Your task to perform on an android device: turn notification dots on Image 0: 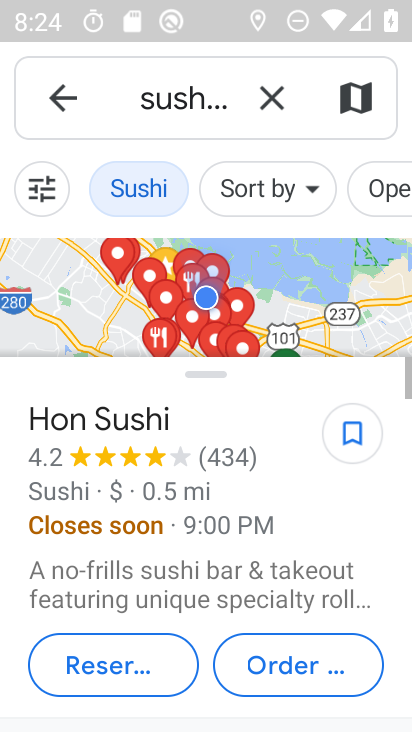
Step 0: press home button
Your task to perform on an android device: turn notification dots on Image 1: 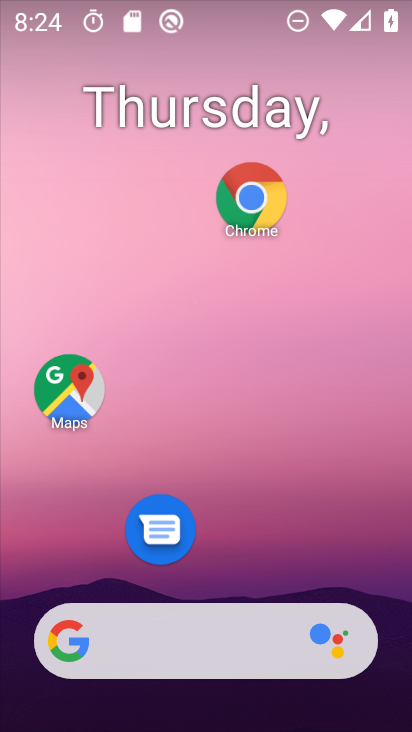
Step 1: drag from (228, 567) to (219, 0)
Your task to perform on an android device: turn notification dots on Image 2: 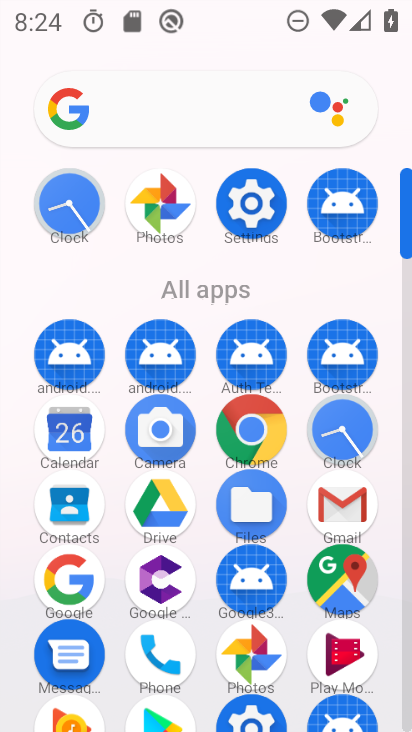
Step 2: click (241, 208)
Your task to perform on an android device: turn notification dots on Image 3: 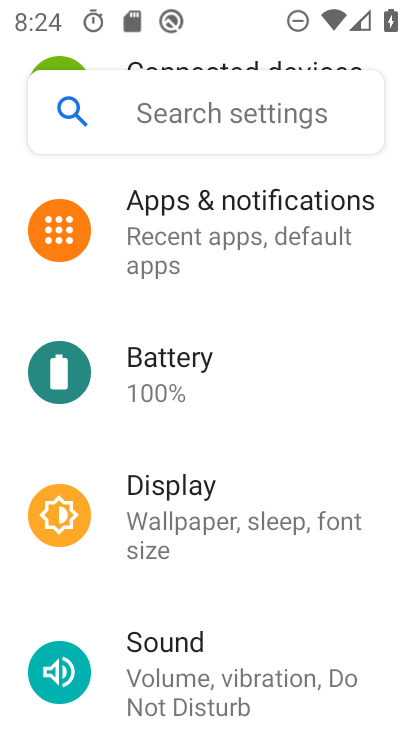
Step 3: click (186, 220)
Your task to perform on an android device: turn notification dots on Image 4: 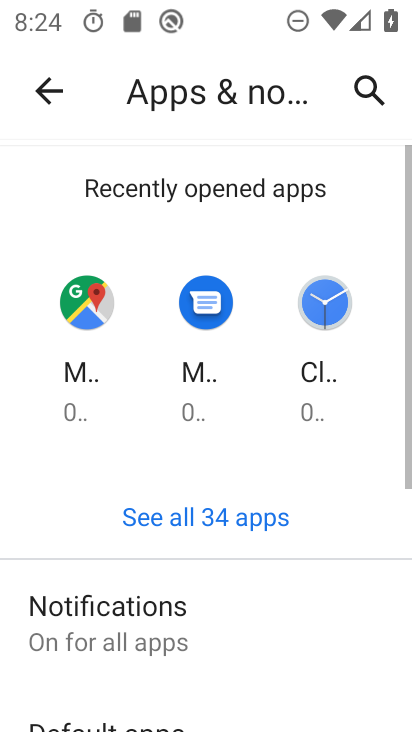
Step 4: click (178, 651)
Your task to perform on an android device: turn notification dots on Image 5: 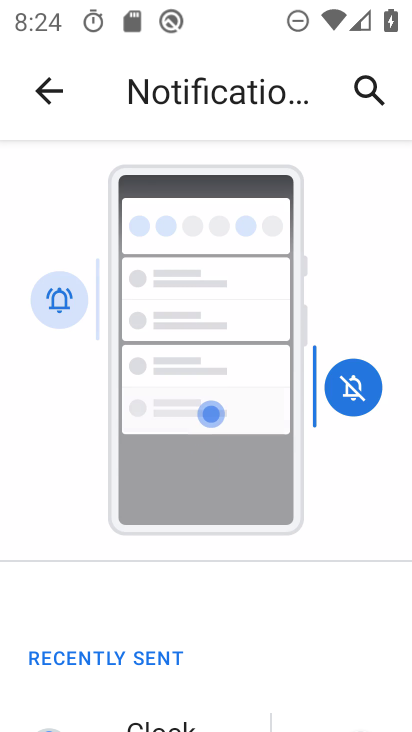
Step 5: drag from (166, 659) to (210, 381)
Your task to perform on an android device: turn notification dots on Image 6: 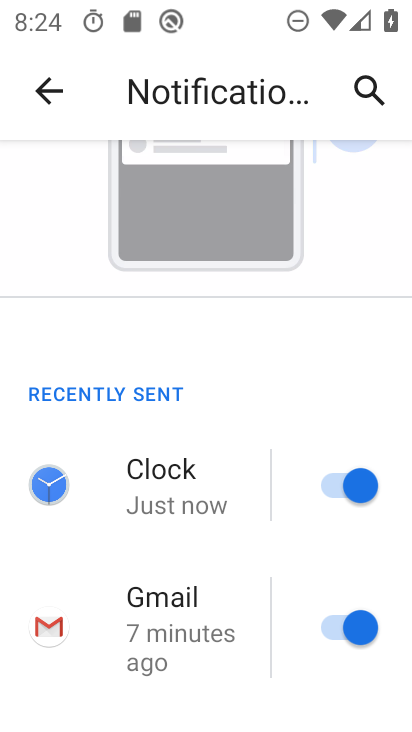
Step 6: drag from (204, 593) to (255, 245)
Your task to perform on an android device: turn notification dots on Image 7: 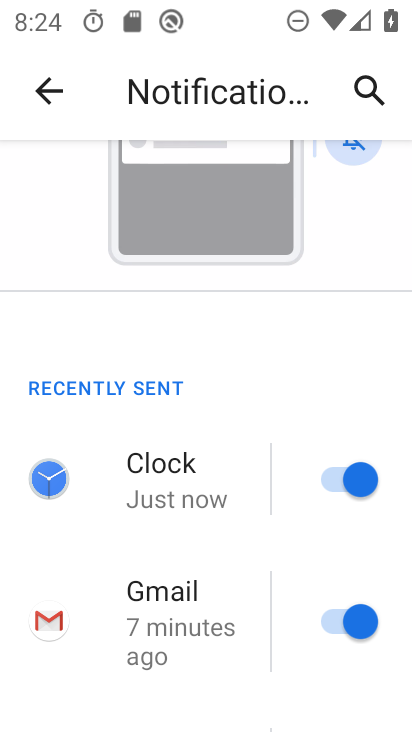
Step 7: drag from (237, 633) to (247, 353)
Your task to perform on an android device: turn notification dots on Image 8: 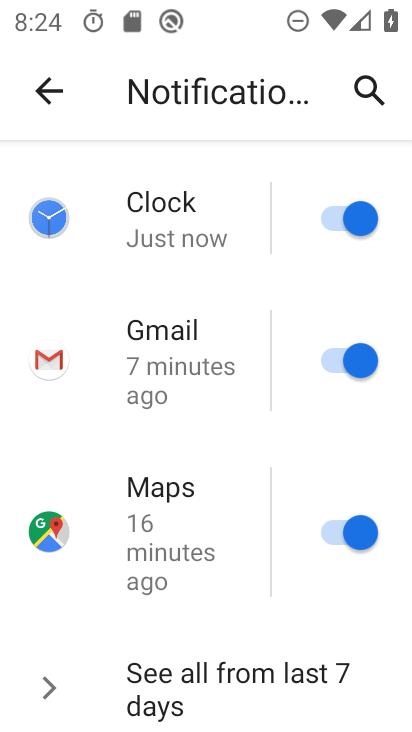
Step 8: drag from (215, 705) to (218, 278)
Your task to perform on an android device: turn notification dots on Image 9: 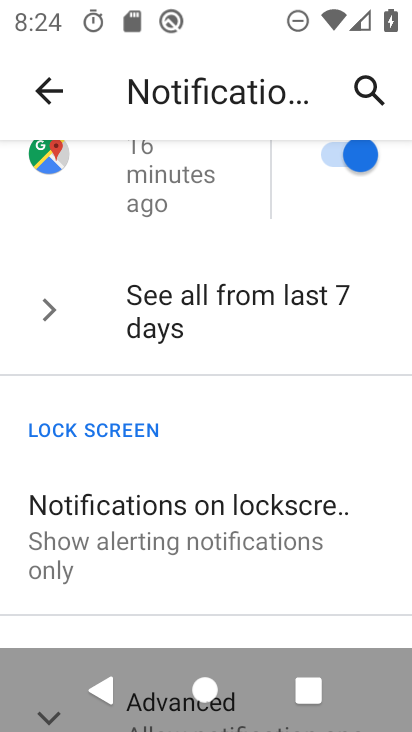
Step 9: drag from (197, 598) to (250, 315)
Your task to perform on an android device: turn notification dots on Image 10: 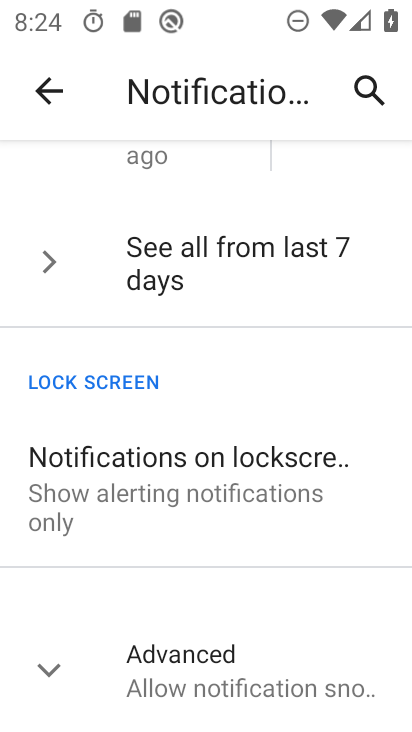
Step 10: click (168, 701)
Your task to perform on an android device: turn notification dots on Image 11: 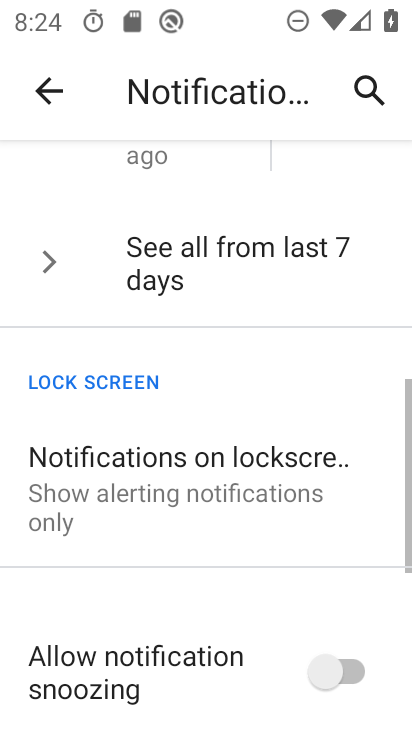
Step 11: drag from (143, 723) to (216, 414)
Your task to perform on an android device: turn notification dots on Image 12: 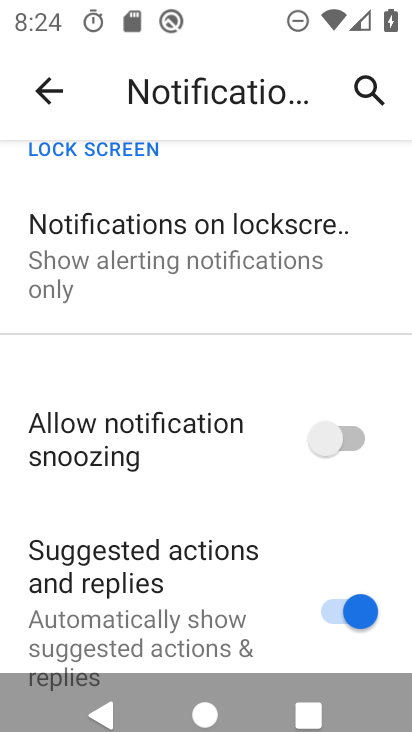
Step 12: drag from (200, 573) to (215, 322)
Your task to perform on an android device: turn notification dots on Image 13: 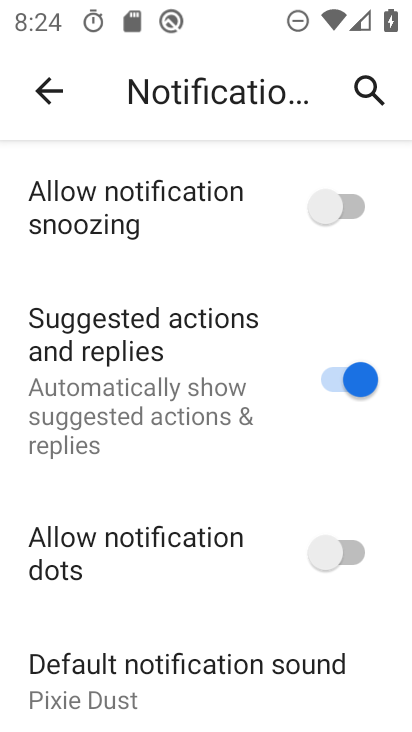
Step 13: click (351, 564)
Your task to perform on an android device: turn notification dots on Image 14: 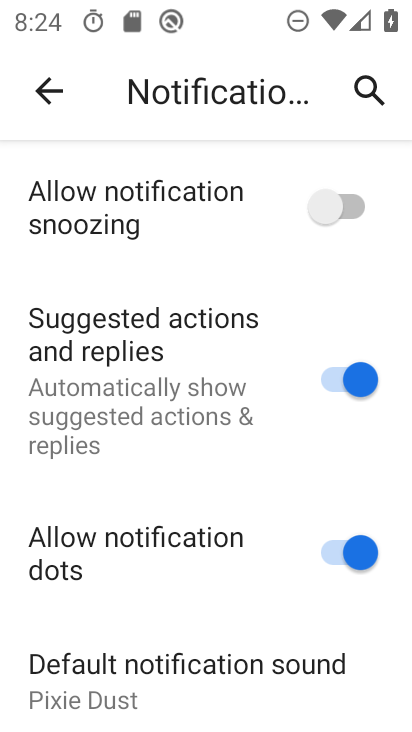
Step 14: task complete